Your task to perform on an android device: see tabs open on other devices in the chrome app Image 0: 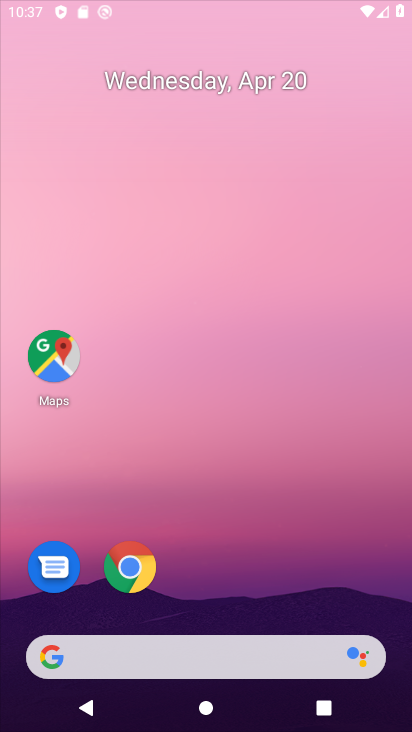
Step 0: click (147, 569)
Your task to perform on an android device: see tabs open on other devices in the chrome app Image 1: 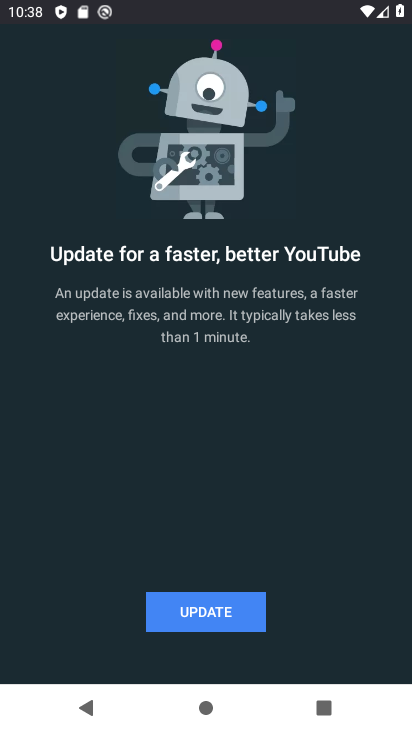
Step 1: press home button
Your task to perform on an android device: see tabs open on other devices in the chrome app Image 2: 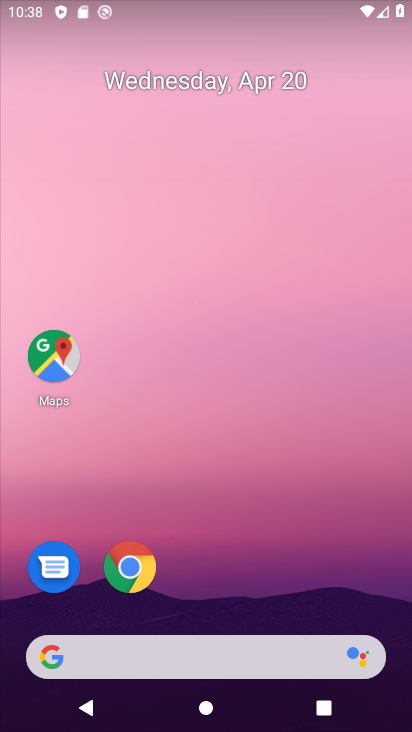
Step 2: click (147, 578)
Your task to perform on an android device: see tabs open on other devices in the chrome app Image 3: 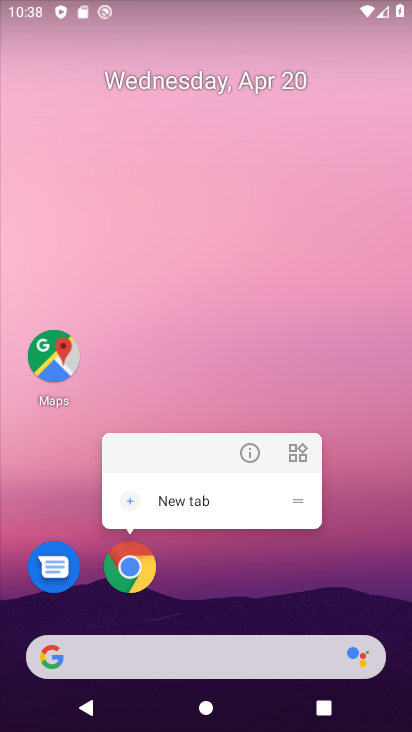
Step 3: click (126, 560)
Your task to perform on an android device: see tabs open on other devices in the chrome app Image 4: 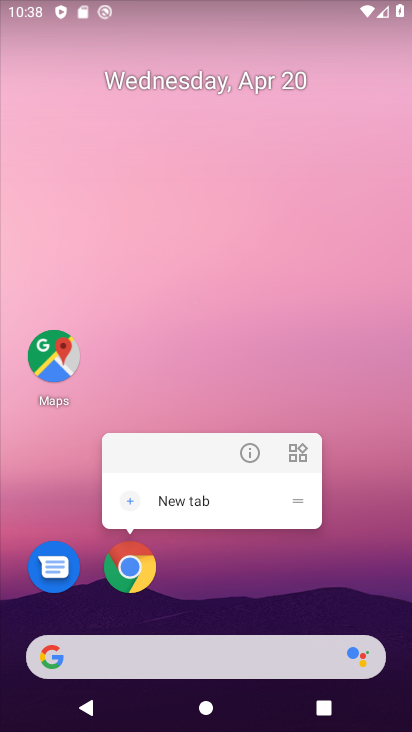
Step 4: click (125, 559)
Your task to perform on an android device: see tabs open on other devices in the chrome app Image 5: 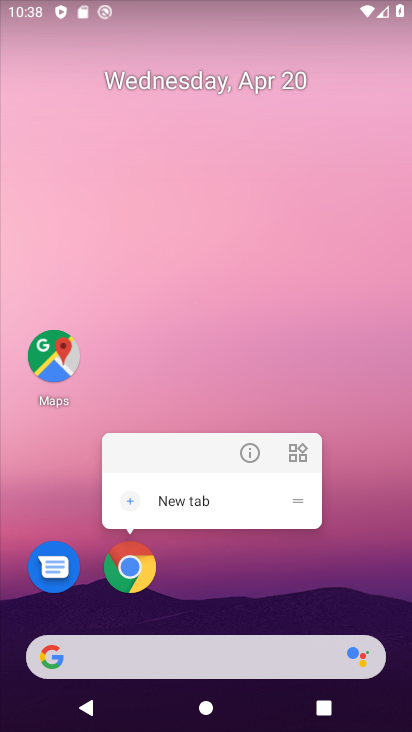
Step 5: click (131, 577)
Your task to perform on an android device: see tabs open on other devices in the chrome app Image 6: 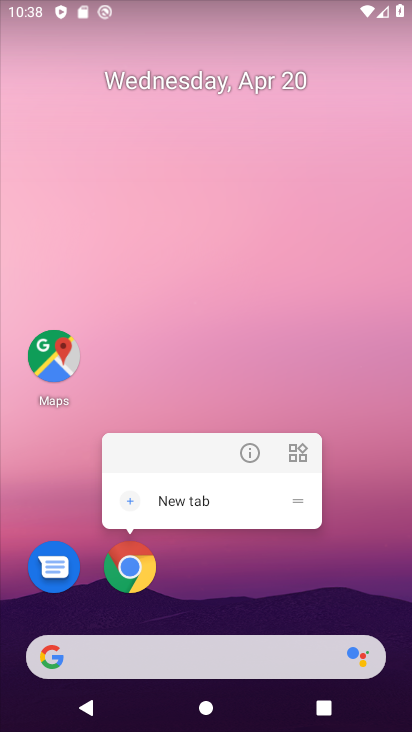
Step 6: click (131, 539)
Your task to perform on an android device: see tabs open on other devices in the chrome app Image 7: 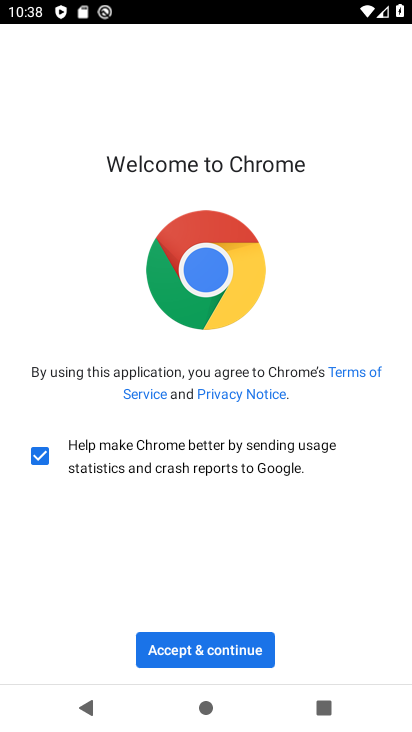
Step 7: click (201, 631)
Your task to perform on an android device: see tabs open on other devices in the chrome app Image 8: 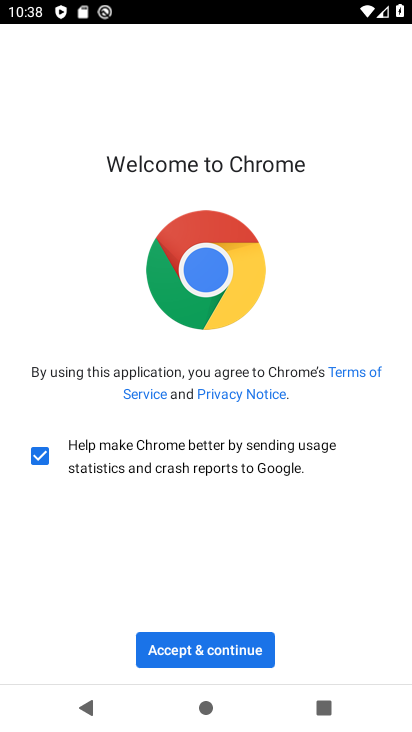
Step 8: click (191, 653)
Your task to perform on an android device: see tabs open on other devices in the chrome app Image 9: 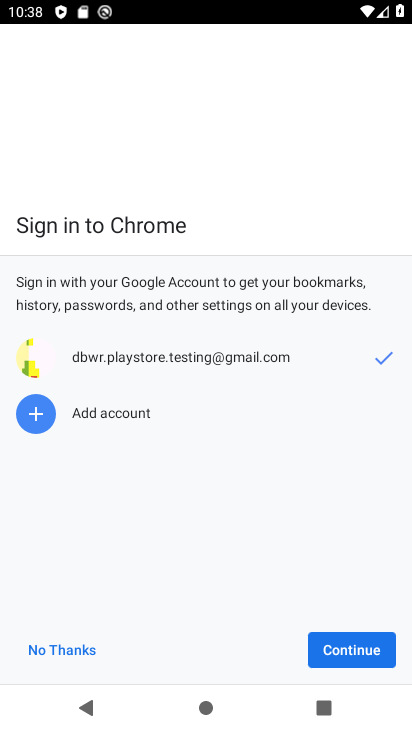
Step 9: click (320, 656)
Your task to perform on an android device: see tabs open on other devices in the chrome app Image 10: 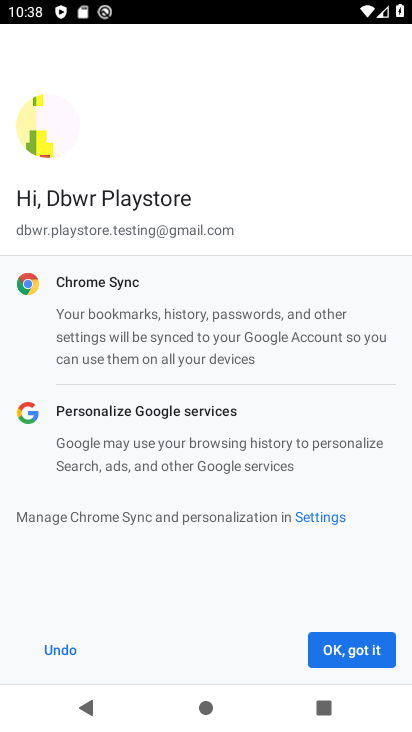
Step 10: click (381, 648)
Your task to perform on an android device: see tabs open on other devices in the chrome app Image 11: 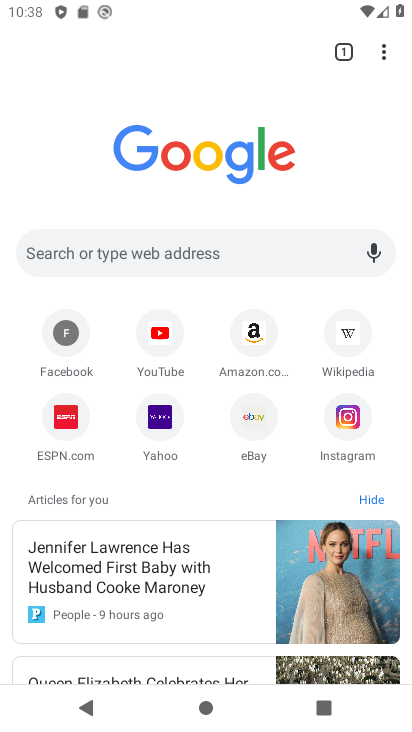
Step 11: click (343, 58)
Your task to perform on an android device: see tabs open on other devices in the chrome app Image 12: 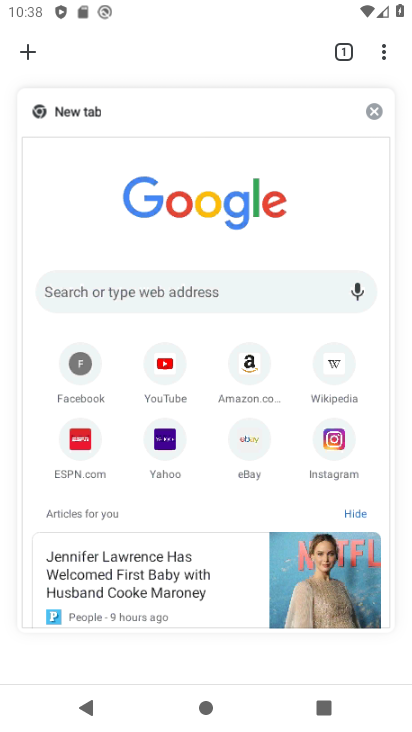
Step 12: task complete